Your task to perform on an android device: remove spam from my inbox in the gmail app Image 0: 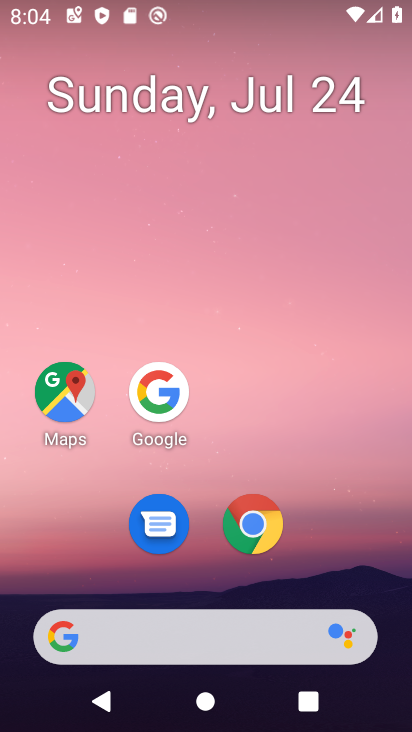
Step 0: press home button
Your task to perform on an android device: remove spam from my inbox in the gmail app Image 1: 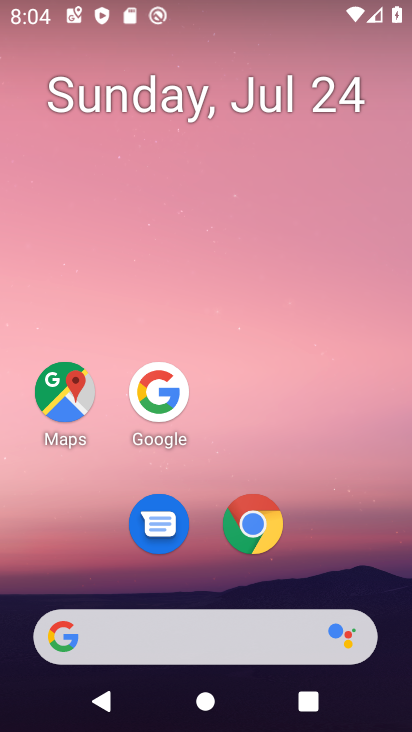
Step 1: drag from (208, 635) to (379, 2)
Your task to perform on an android device: remove spam from my inbox in the gmail app Image 2: 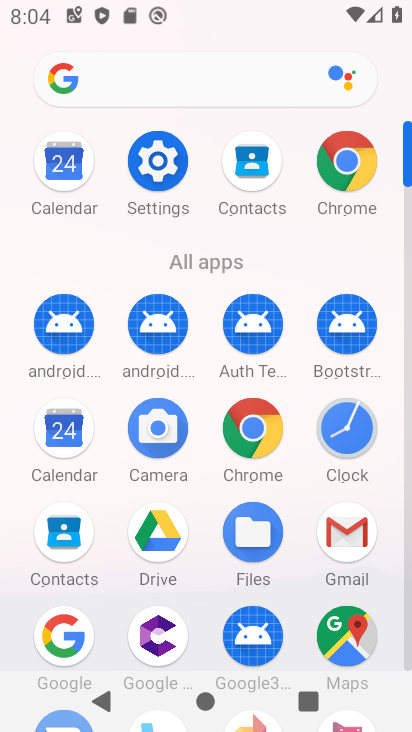
Step 2: click (356, 525)
Your task to perform on an android device: remove spam from my inbox in the gmail app Image 3: 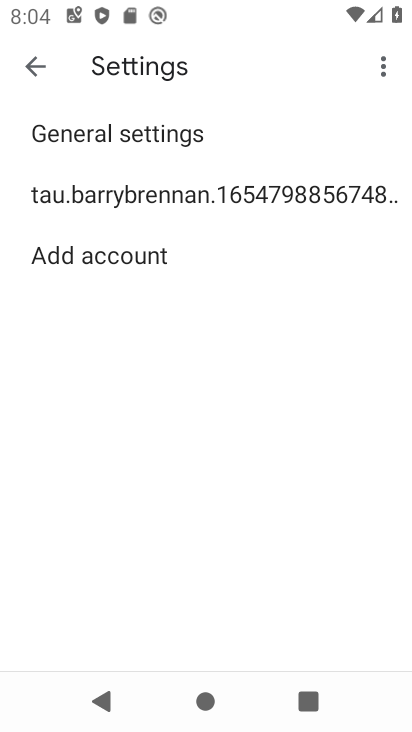
Step 3: click (37, 66)
Your task to perform on an android device: remove spam from my inbox in the gmail app Image 4: 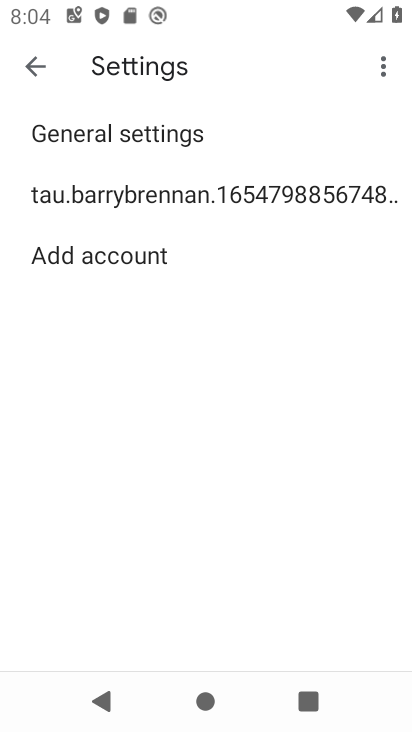
Step 4: click (26, 73)
Your task to perform on an android device: remove spam from my inbox in the gmail app Image 5: 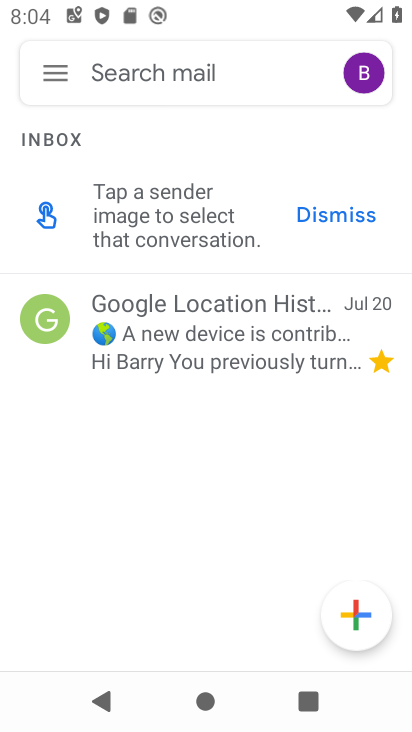
Step 5: click (52, 71)
Your task to perform on an android device: remove spam from my inbox in the gmail app Image 6: 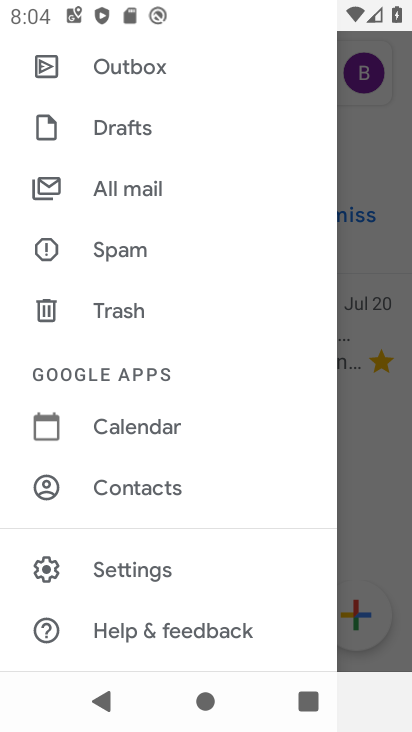
Step 6: click (135, 256)
Your task to perform on an android device: remove spam from my inbox in the gmail app Image 7: 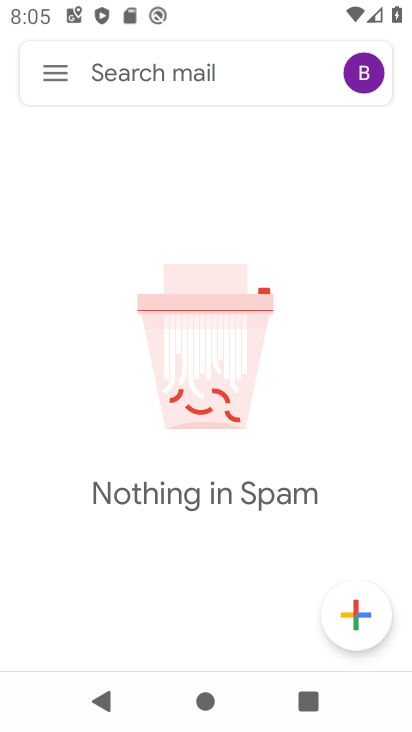
Step 7: task complete